Your task to perform on an android device: change text size in settings app Image 0: 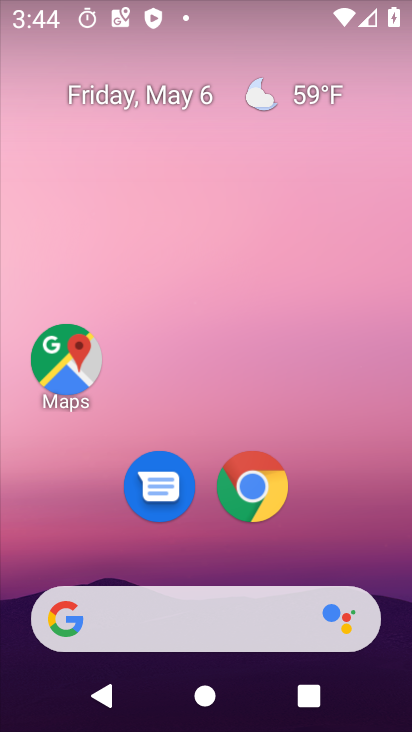
Step 0: drag from (360, 515) to (261, 3)
Your task to perform on an android device: change text size in settings app Image 1: 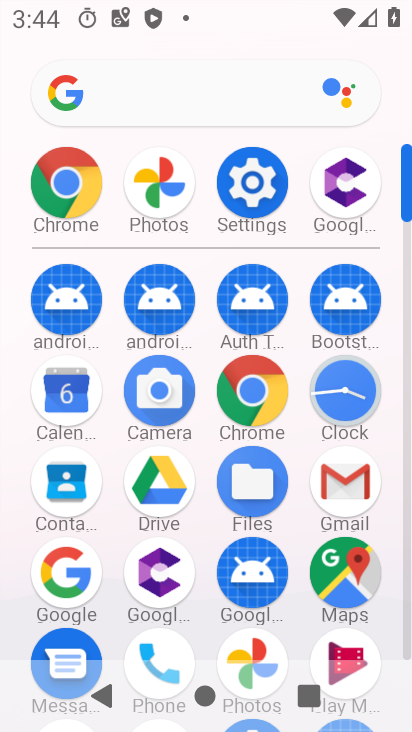
Step 1: click (247, 198)
Your task to perform on an android device: change text size in settings app Image 2: 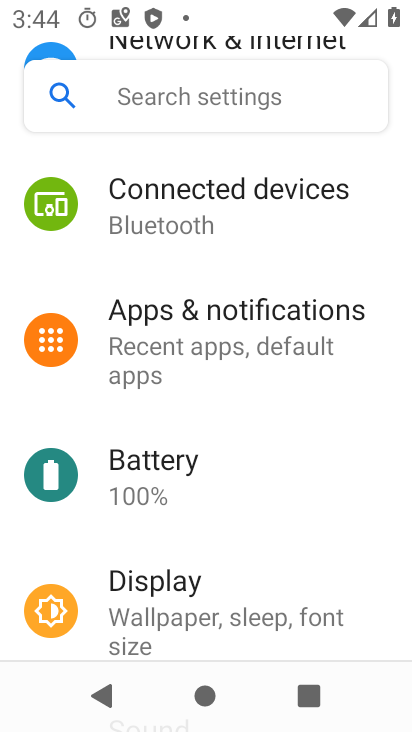
Step 2: drag from (220, 253) to (280, 731)
Your task to perform on an android device: change text size in settings app Image 3: 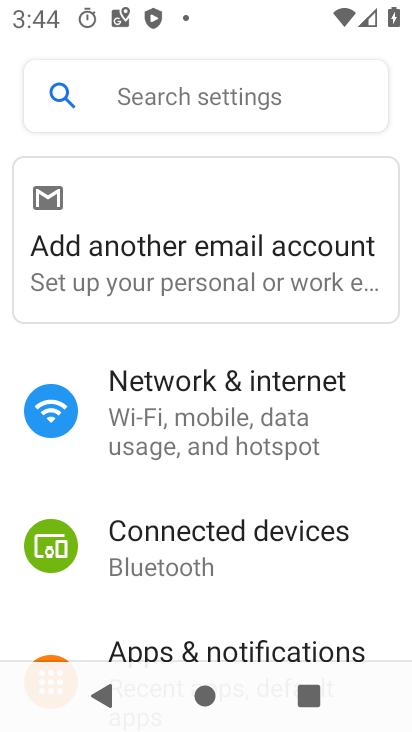
Step 3: drag from (251, 581) to (191, 307)
Your task to perform on an android device: change text size in settings app Image 4: 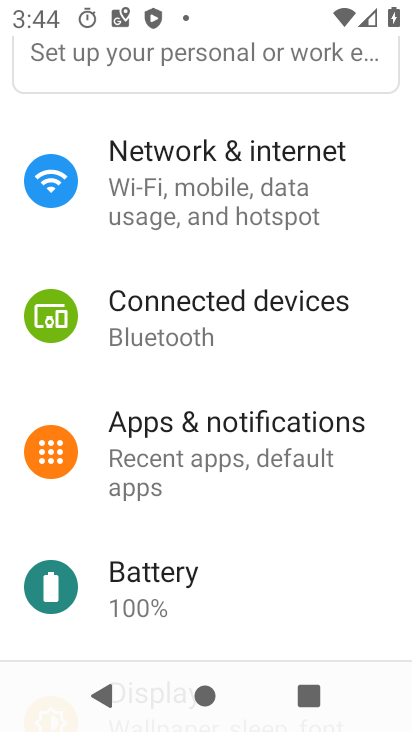
Step 4: drag from (213, 506) to (168, 295)
Your task to perform on an android device: change text size in settings app Image 5: 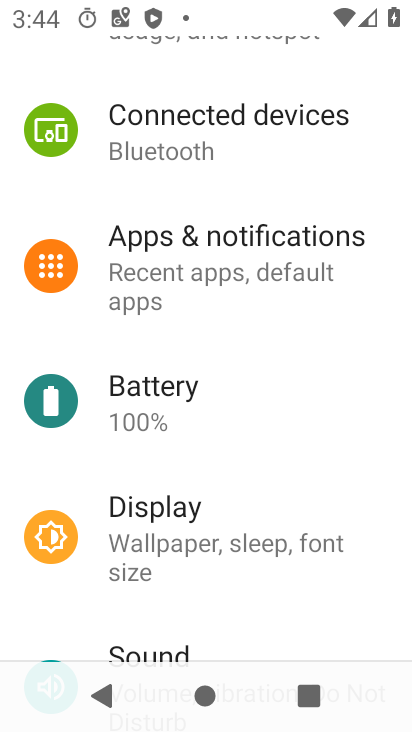
Step 5: click (165, 520)
Your task to perform on an android device: change text size in settings app Image 6: 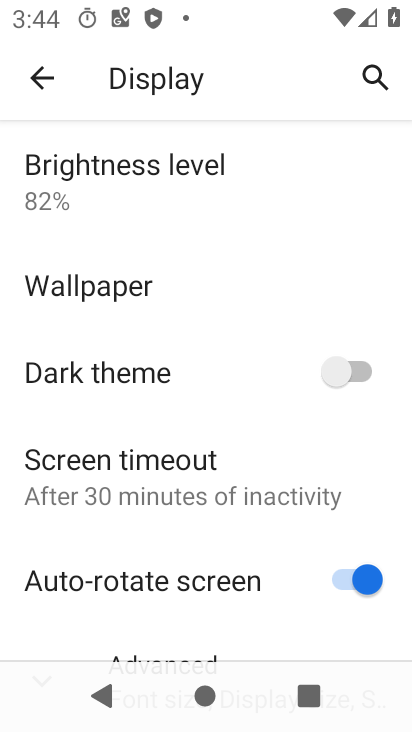
Step 6: drag from (240, 530) to (200, 233)
Your task to perform on an android device: change text size in settings app Image 7: 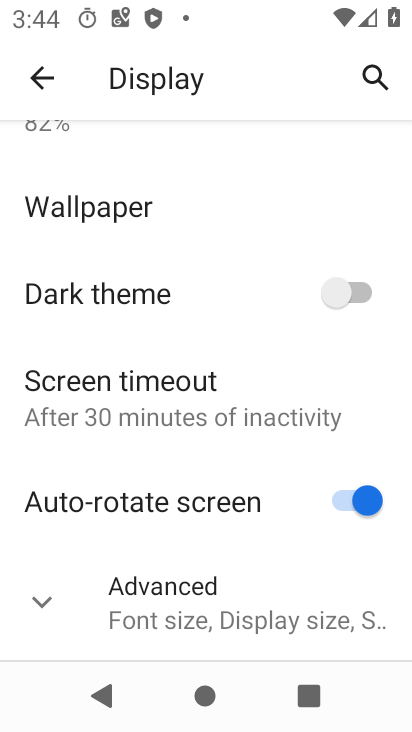
Step 7: click (151, 615)
Your task to perform on an android device: change text size in settings app Image 8: 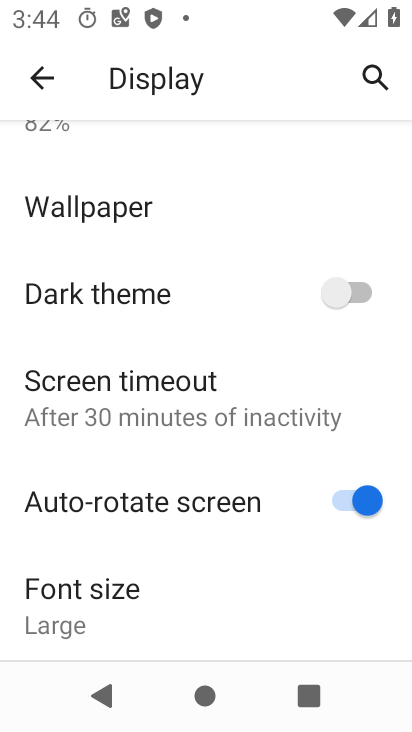
Step 8: drag from (192, 442) to (131, 192)
Your task to perform on an android device: change text size in settings app Image 9: 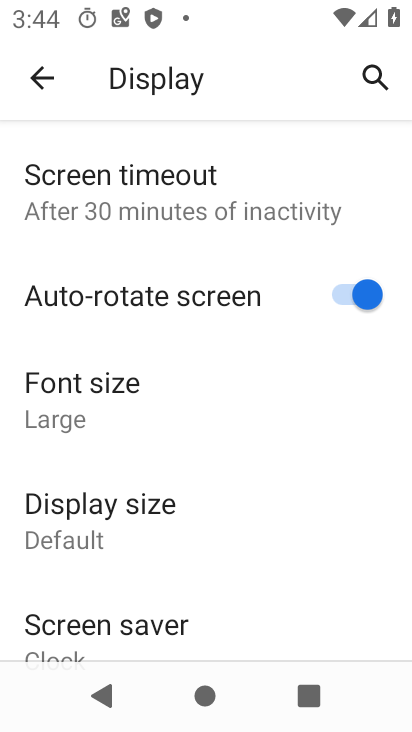
Step 9: click (81, 381)
Your task to perform on an android device: change text size in settings app Image 10: 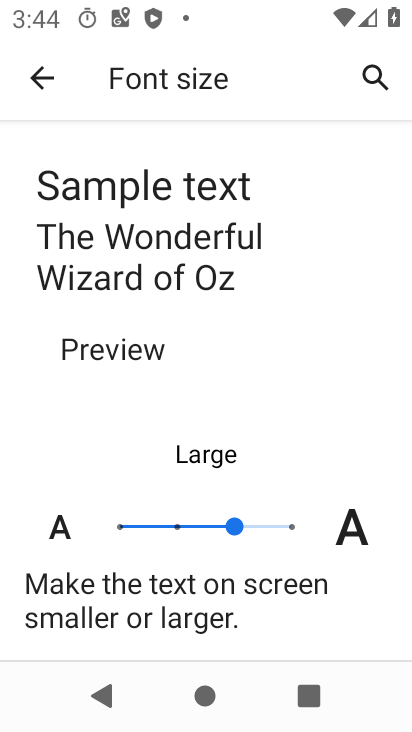
Step 10: click (166, 525)
Your task to perform on an android device: change text size in settings app Image 11: 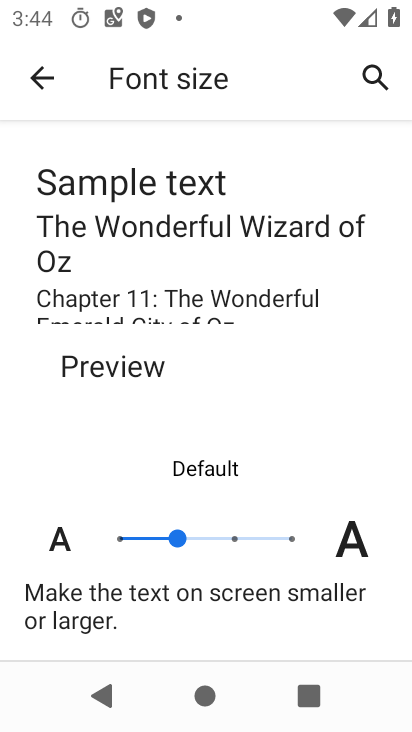
Step 11: task complete